Your task to perform on an android device: move a message to another label in the gmail app Image 0: 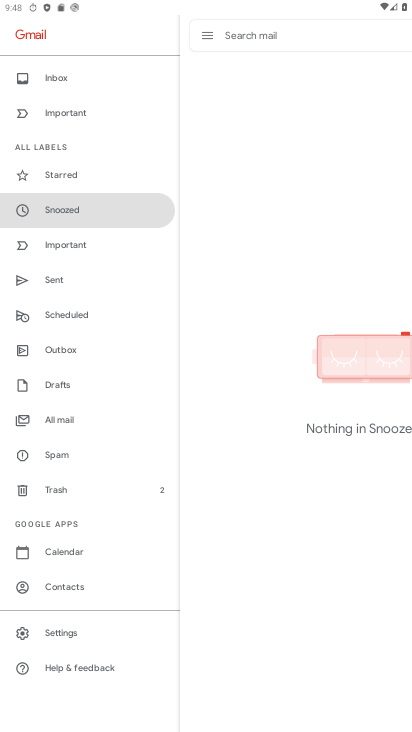
Step 0: click (77, 205)
Your task to perform on an android device: move a message to another label in the gmail app Image 1: 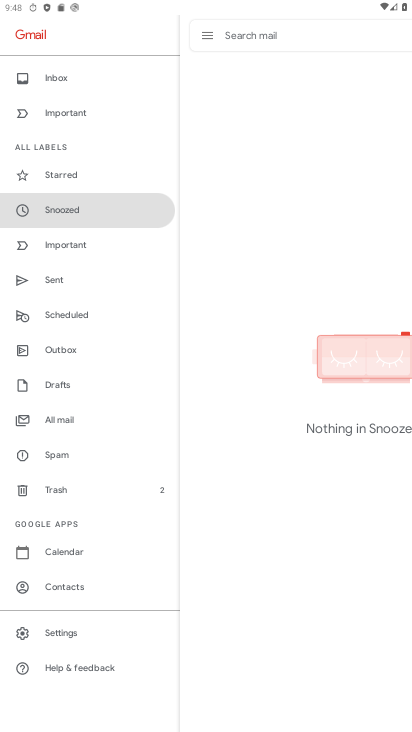
Step 1: click (50, 81)
Your task to perform on an android device: move a message to another label in the gmail app Image 2: 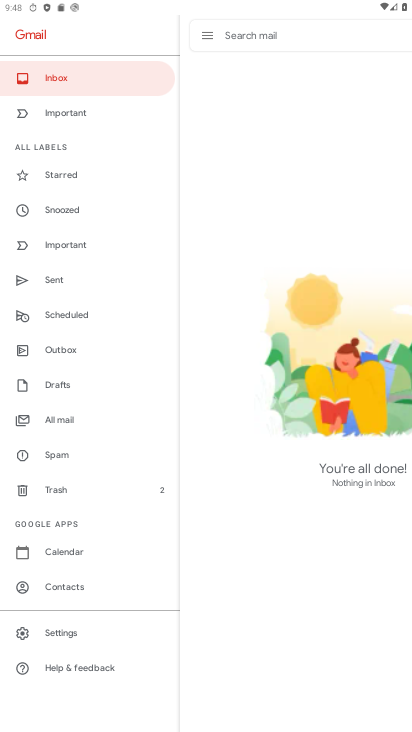
Step 2: click (232, 363)
Your task to perform on an android device: move a message to another label in the gmail app Image 3: 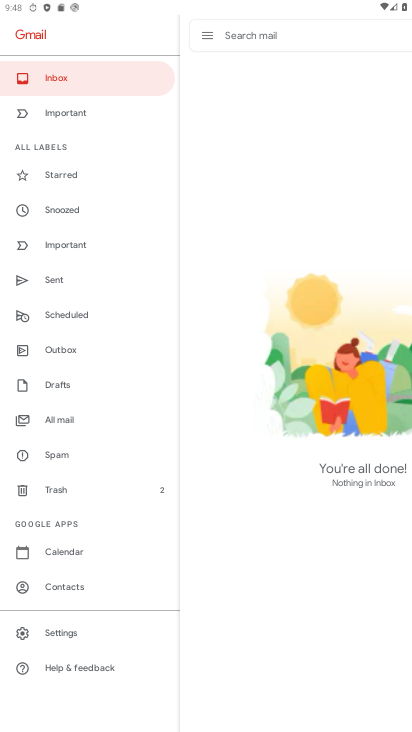
Step 3: task complete